Your task to perform on an android device: change alarm snooze length Image 0: 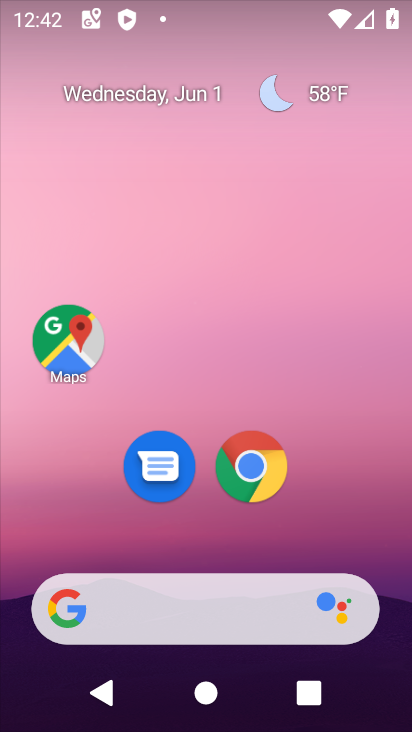
Step 0: drag from (359, 559) to (311, 289)
Your task to perform on an android device: change alarm snooze length Image 1: 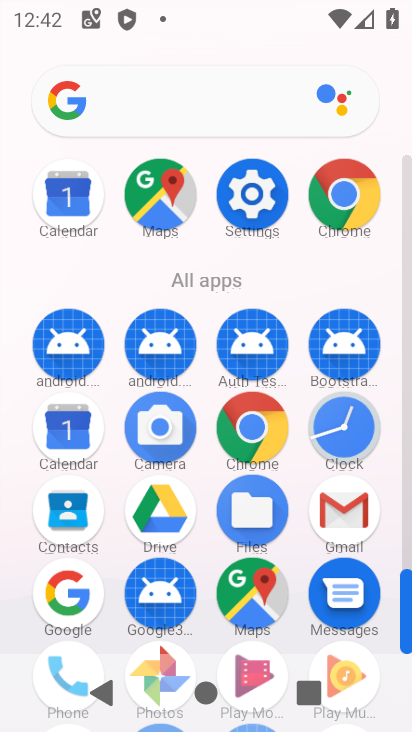
Step 1: click (355, 418)
Your task to perform on an android device: change alarm snooze length Image 2: 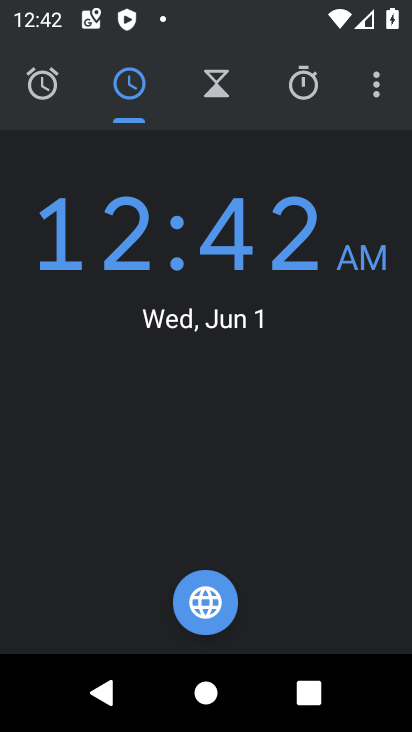
Step 2: click (376, 100)
Your task to perform on an android device: change alarm snooze length Image 3: 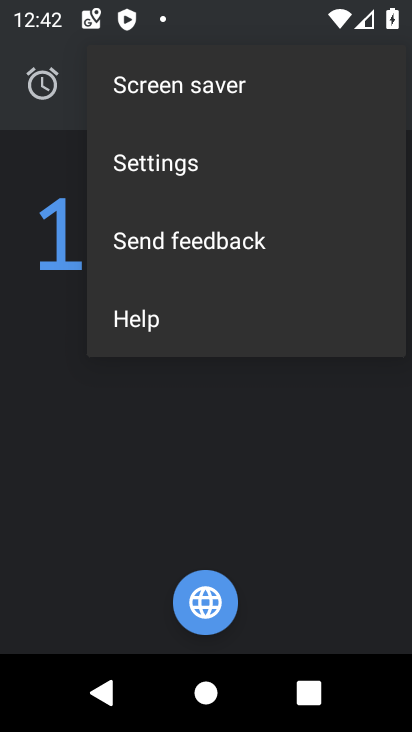
Step 3: click (322, 153)
Your task to perform on an android device: change alarm snooze length Image 4: 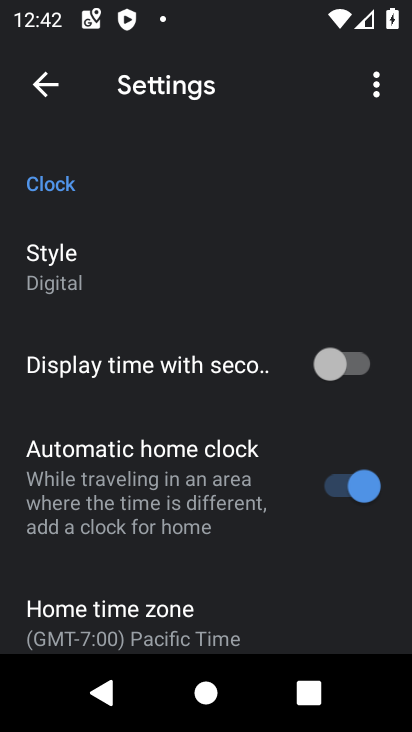
Step 4: drag from (297, 572) to (248, 202)
Your task to perform on an android device: change alarm snooze length Image 5: 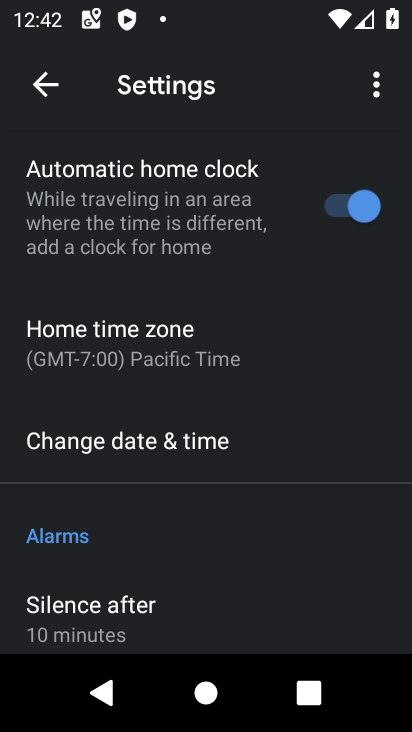
Step 5: drag from (287, 437) to (262, 185)
Your task to perform on an android device: change alarm snooze length Image 6: 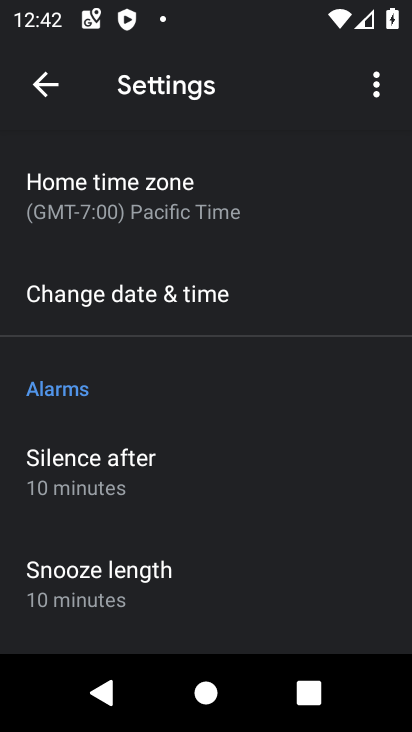
Step 6: click (172, 606)
Your task to perform on an android device: change alarm snooze length Image 7: 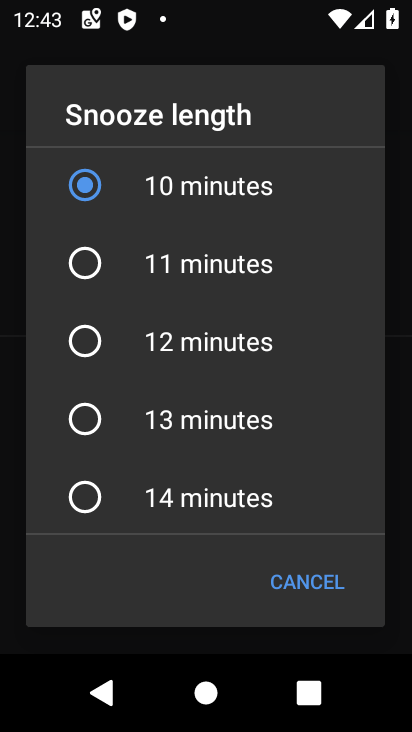
Step 7: click (180, 496)
Your task to perform on an android device: change alarm snooze length Image 8: 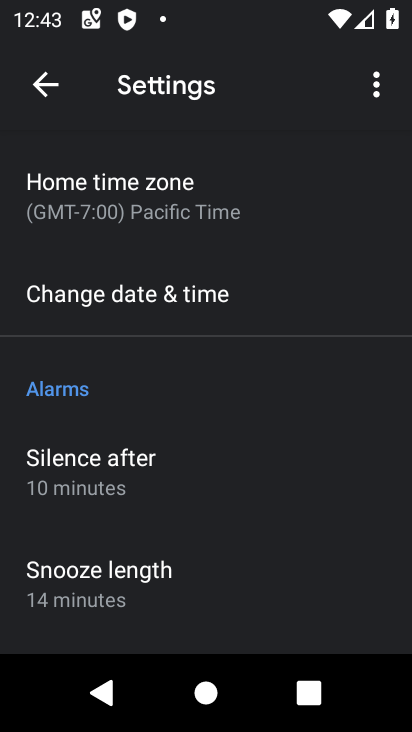
Step 8: task complete